Your task to perform on an android device: find which apps use the phone's location Image 0: 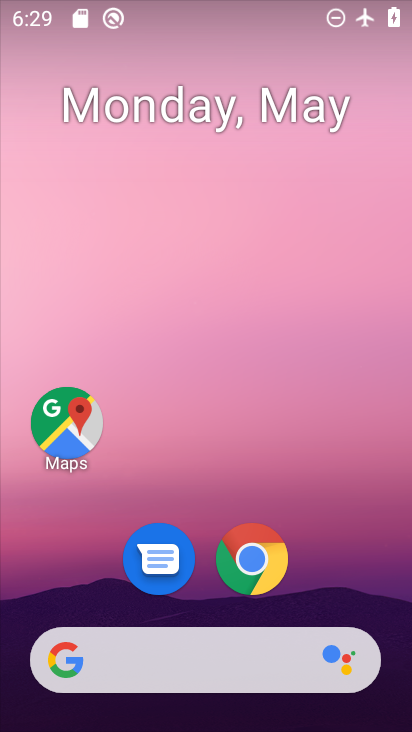
Step 0: drag from (355, 517) to (200, 119)
Your task to perform on an android device: find which apps use the phone's location Image 1: 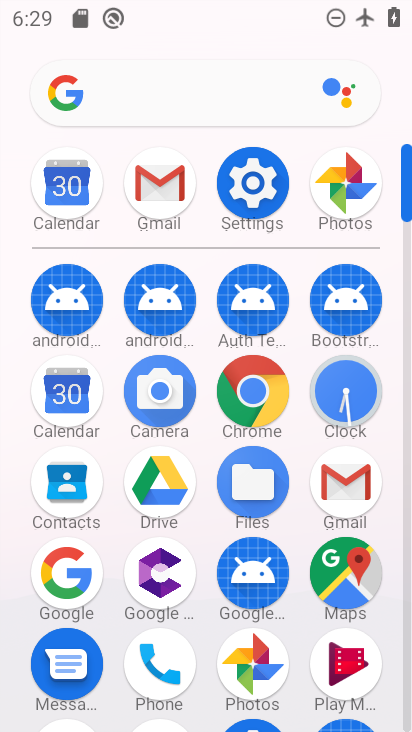
Step 1: click (256, 182)
Your task to perform on an android device: find which apps use the phone's location Image 2: 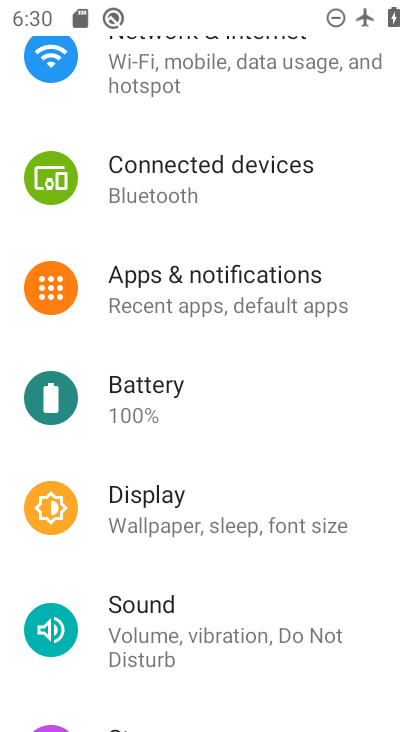
Step 2: drag from (236, 581) to (189, 217)
Your task to perform on an android device: find which apps use the phone's location Image 3: 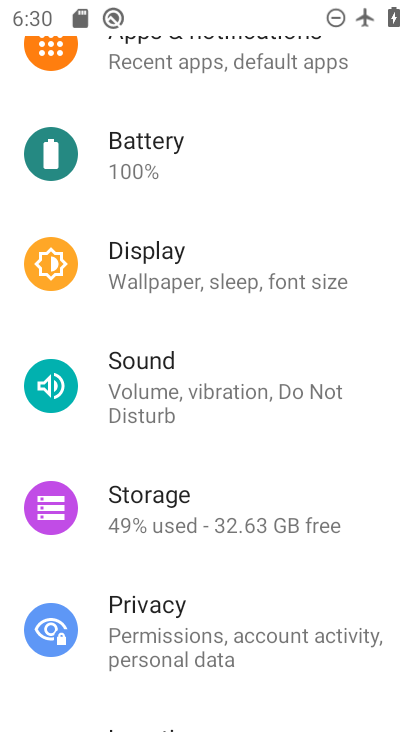
Step 3: drag from (210, 556) to (172, 286)
Your task to perform on an android device: find which apps use the phone's location Image 4: 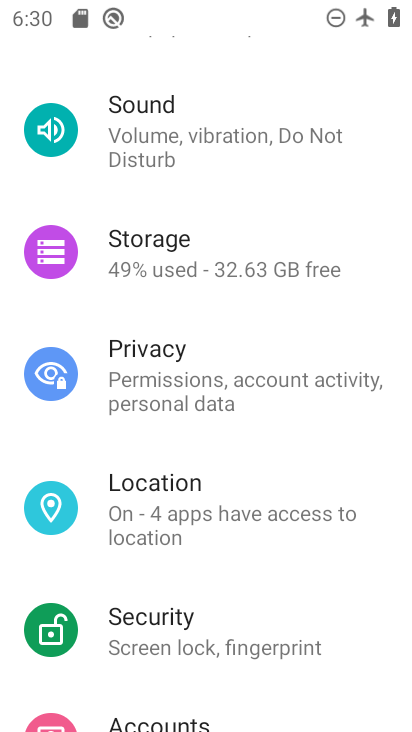
Step 4: click (162, 486)
Your task to perform on an android device: find which apps use the phone's location Image 5: 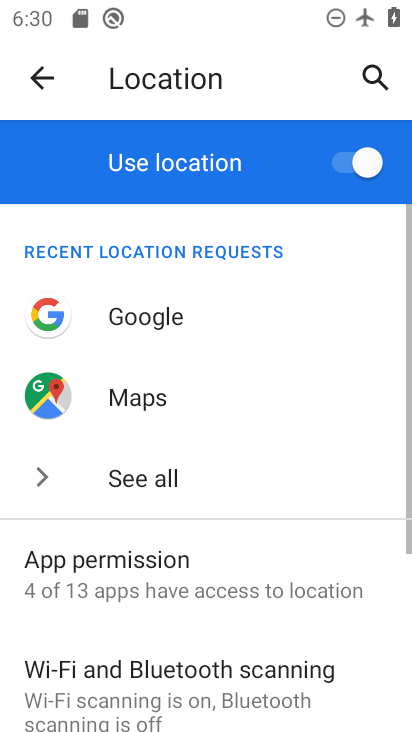
Step 5: click (168, 470)
Your task to perform on an android device: find which apps use the phone's location Image 6: 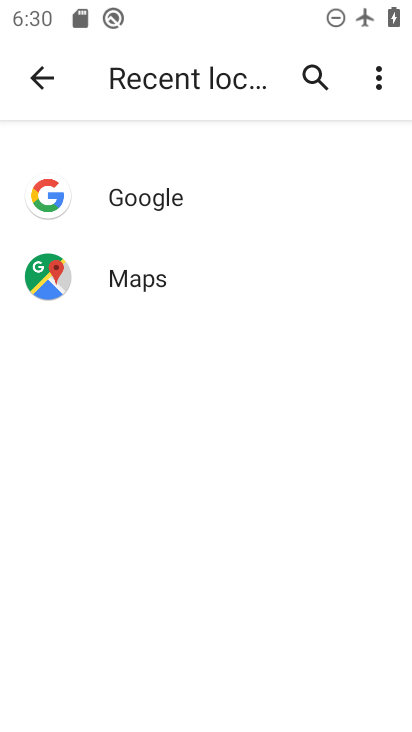
Step 6: task complete